Your task to perform on an android device: find which apps use the phone's location Image 0: 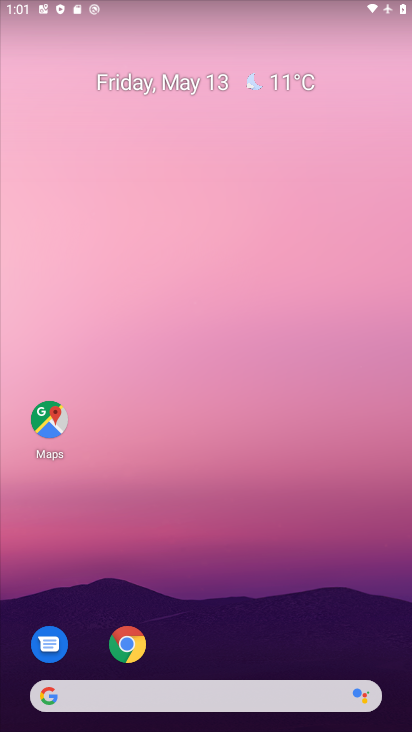
Step 0: drag from (216, 719) to (217, 144)
Your task to perform on an android device: find which apps use the phone's location Image 1: 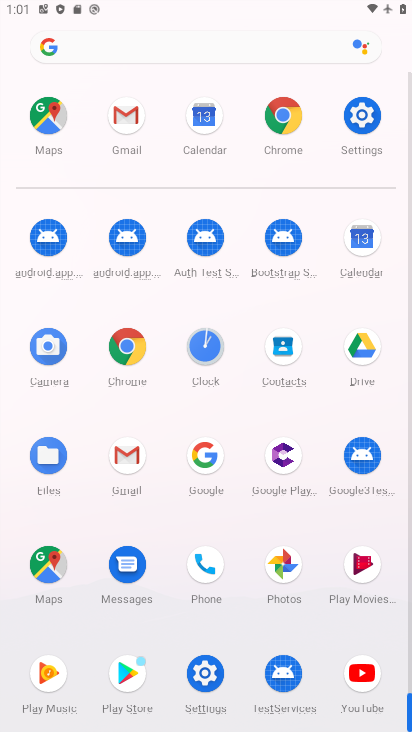
Step 1: click (367, 114)
Your task to perform on an android device: find which apps use the phone's location Image 2: 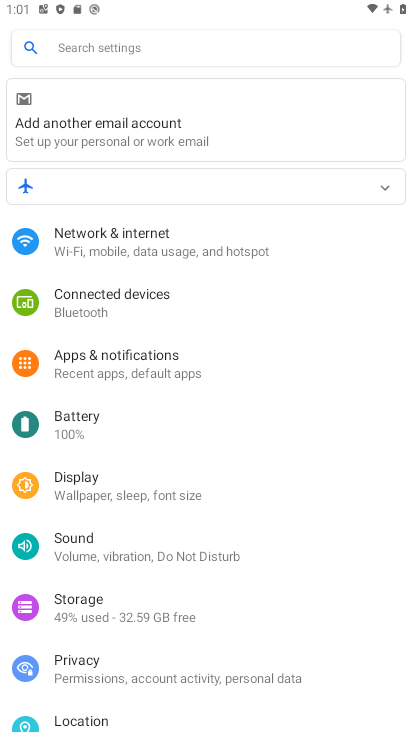
Step 2: click (76, 713)
Your task to perform on an android device: find which apps use the phone's location Image 3: 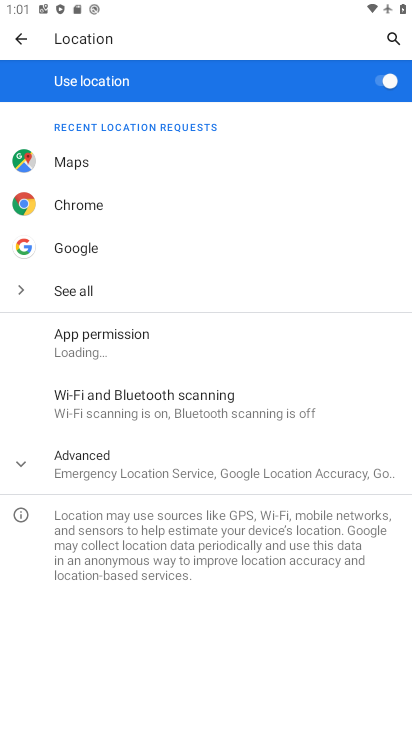
Step 3: click (97, 335)
Your task to perform on an android device: find which apps use the phone's location Image 4: 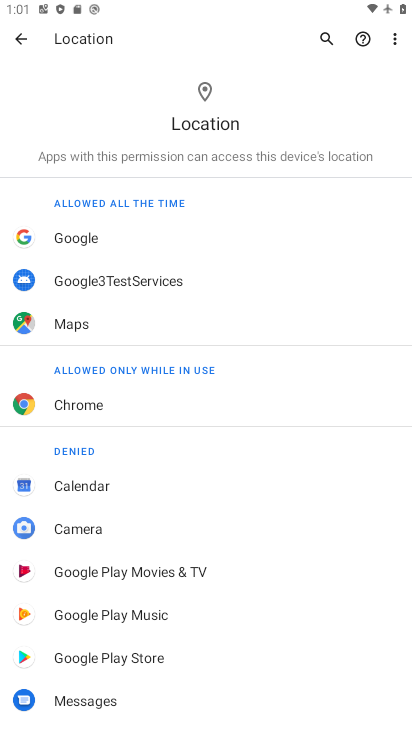
Step 4: task complete